Your task to perform on an android device: Go to privacy settings Image 0: 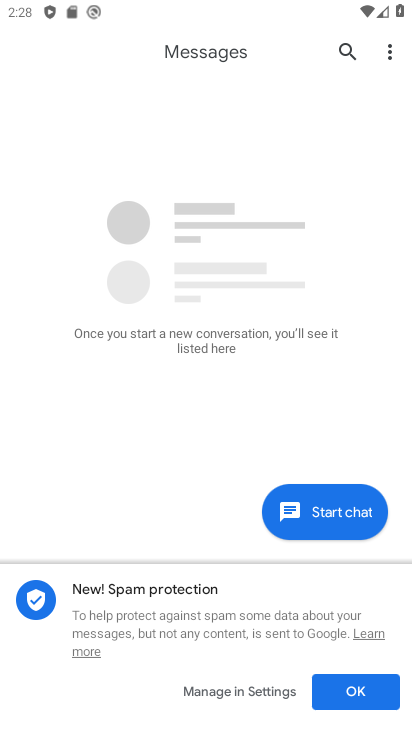
Step 0: press home button
Your task to perform on an android device: Go to privacy settings Image 1: 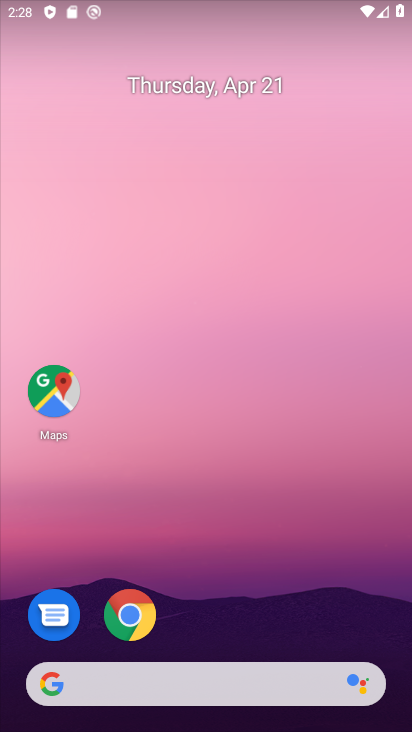
Step 1: drag from (234, 621) to (299, 8)
Your task to perform on an android device: Go to privacy settings Image 2: 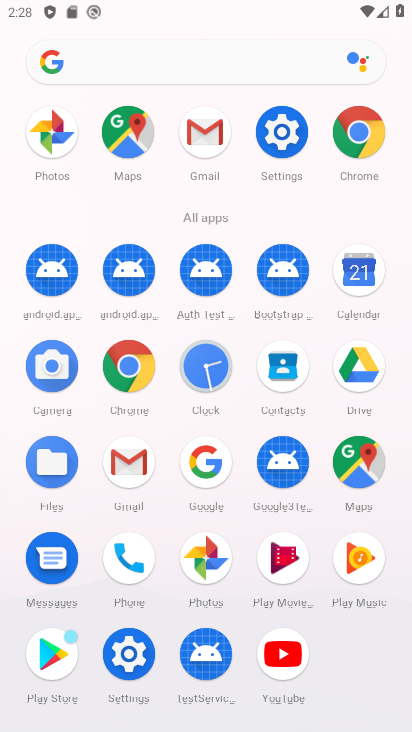
Step 2: click (122, 650)
Your task to perform on an android device: Go to privacy settings Image 3: 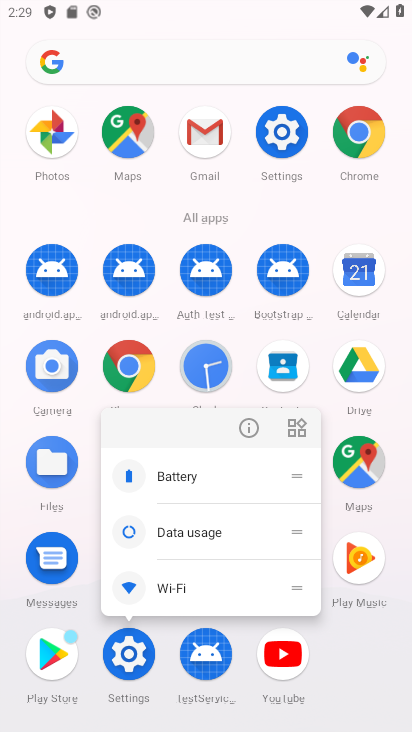
Step 3: click (123, 650)
Your task to perform on an android device: Go to privacy settings Image 4: 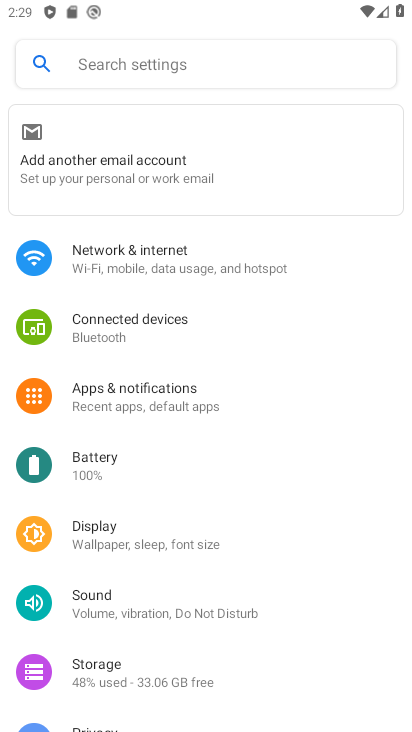
Step 4: drag from (100, 706) to (127, 300)
Your task to perform on an android device: Go to privacy settings Image 5: 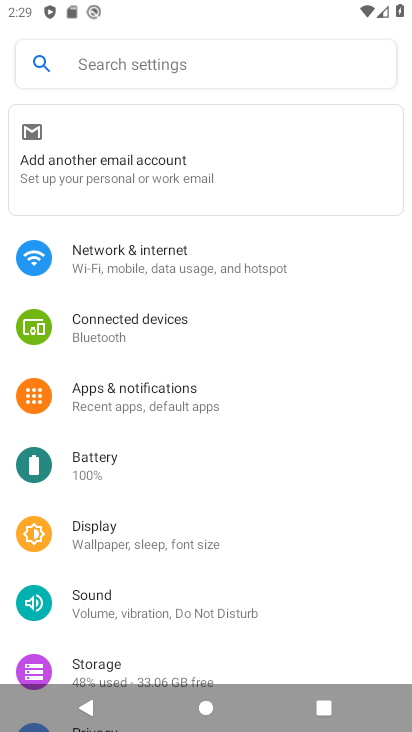
Step 5: click (127, 300)
Your task to perform on an android device: Go to privacy settings Image 6: 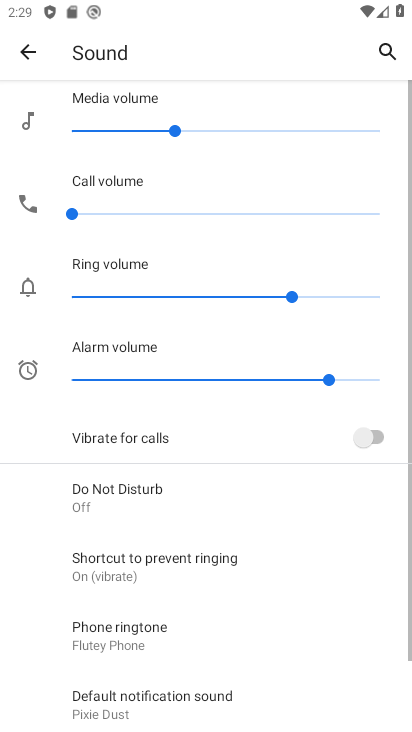
Step 6: click (136, 431)
Your task to perform on an android device: Go to privacy settings Image 7: 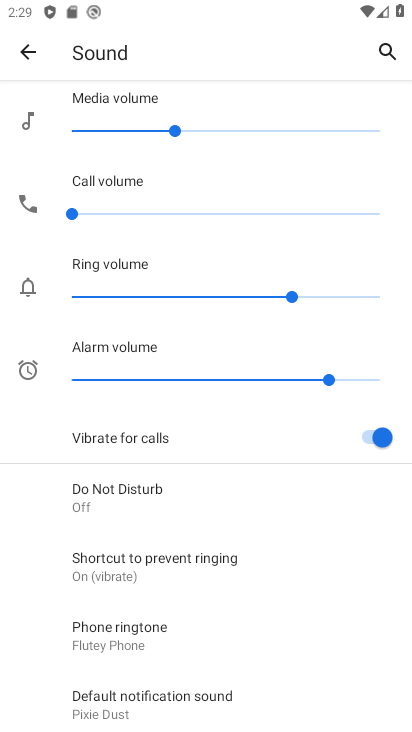
Step 7: task complete